Your task to perform on an android device: Go to wifi settings Image 0: 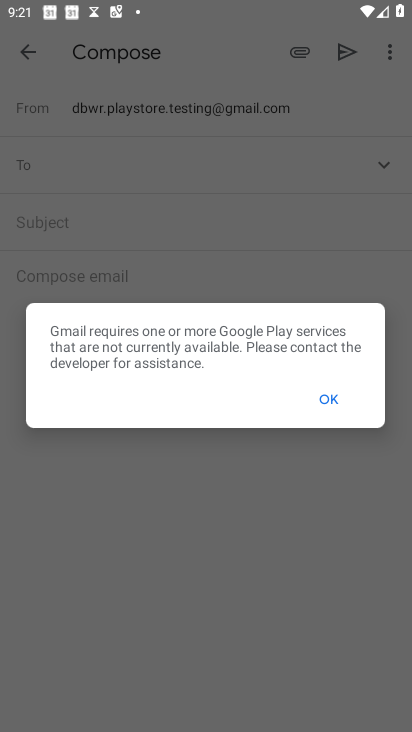
Step 0: press home button
Your task to perform on an android device: Go to wifi settings Image 1: 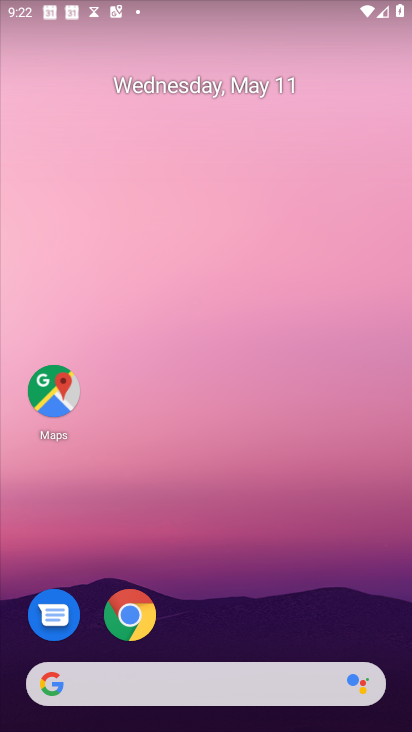
Step 1: drag from (164, 17) to (7, 665)
Your task to perform on an android device: Go to wifi settings Image 2: 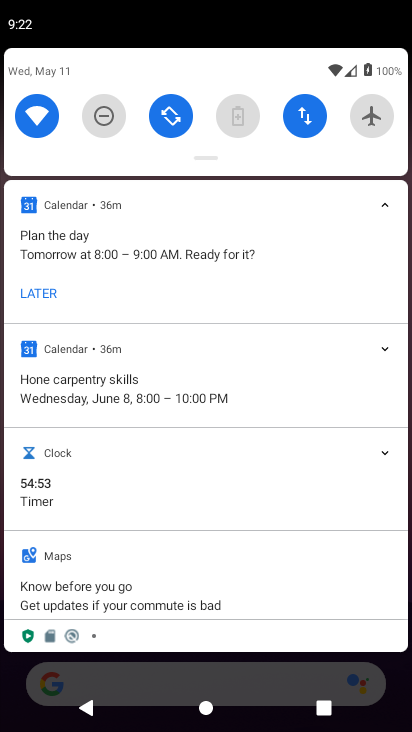
Step 2: click (41, 119)
Your task to perform on an android device: Go to wifi settings Image 3: 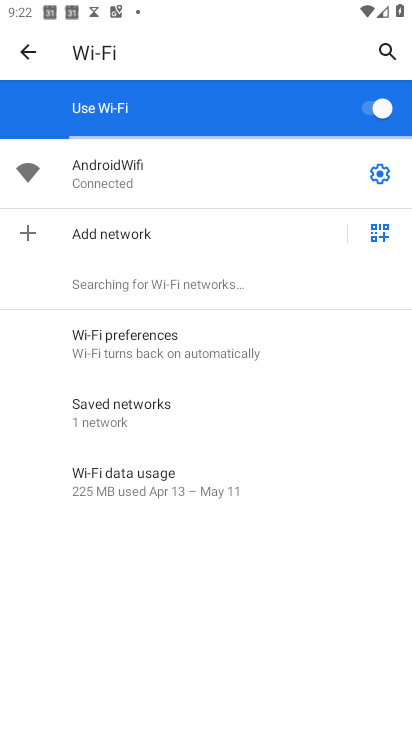
Step 3: click (372, 168)
Your task to perform on an android device: Go to wifi settings Image 4: 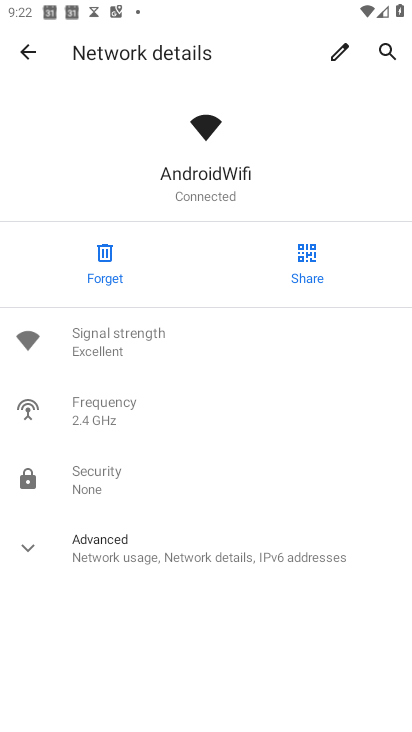
Step 4: task complete